Your task to perform on an android device: set the timer Image 0: 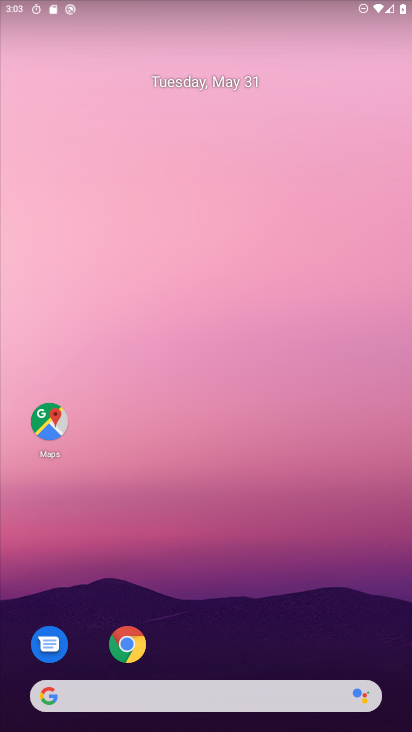
Step 0: click (313, 407)
Your task to perform on an android device: set the timer Image 1: 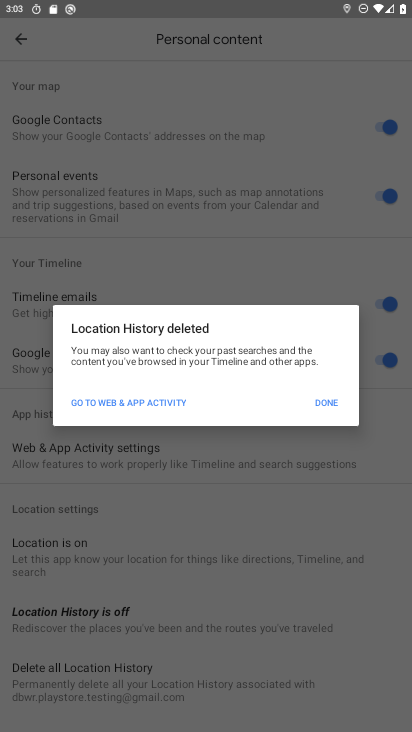
Step 1: press home button
Your task to perform on an android device: set the timer Image 2: 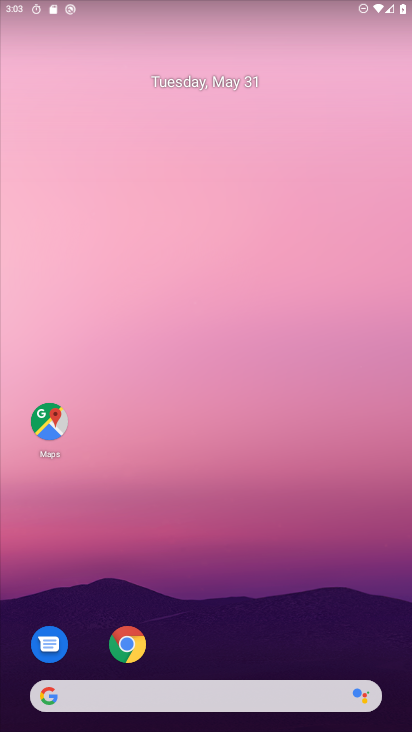
Step 2: drag from (401, 690) to (361, 208)
Your task to perform on an android device: set the timer Image 3: 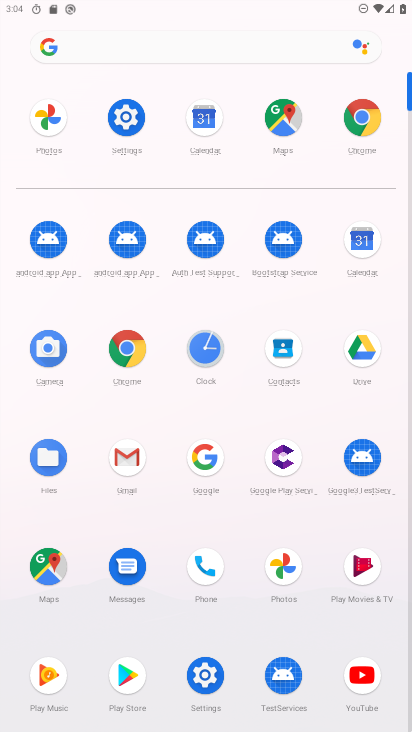
Step 3: click (133, 120)
Your task to perform on an android device: set the timer Image 4: 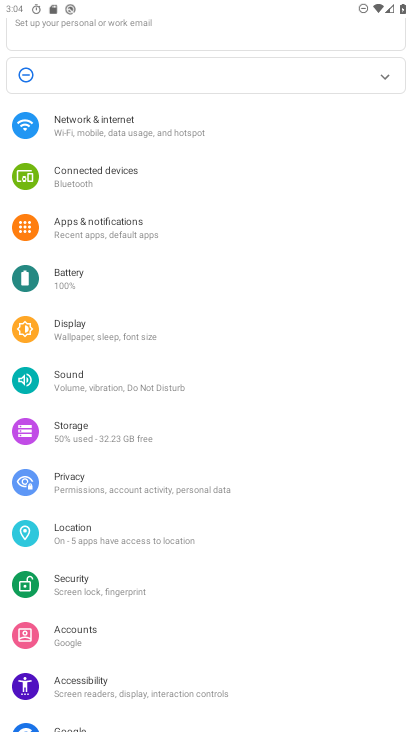
Step 4: press back button
Your task to perform on an android device: set the timer Image 5: 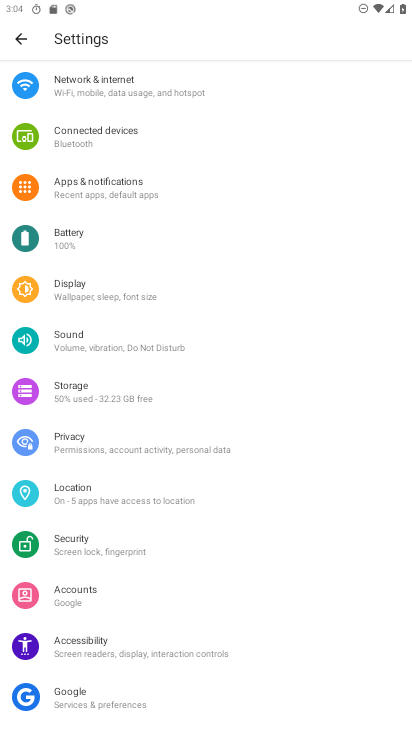
Step 5: press back button
Your task to perform on an android device: set the timer Image 6: 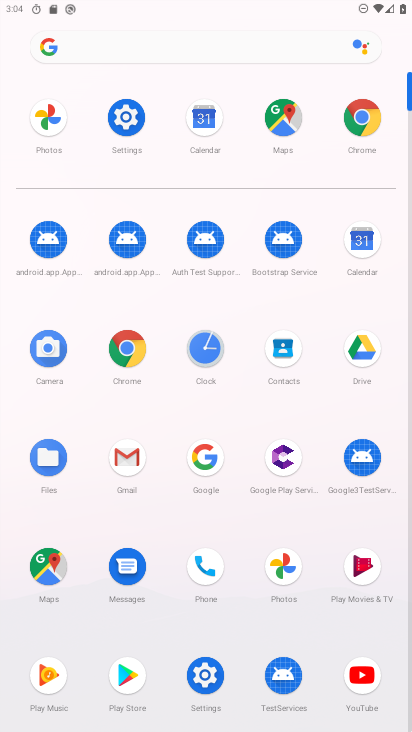
Step 6: click (191, 352)
Your task to perform on an android device: set the timer Image 7: 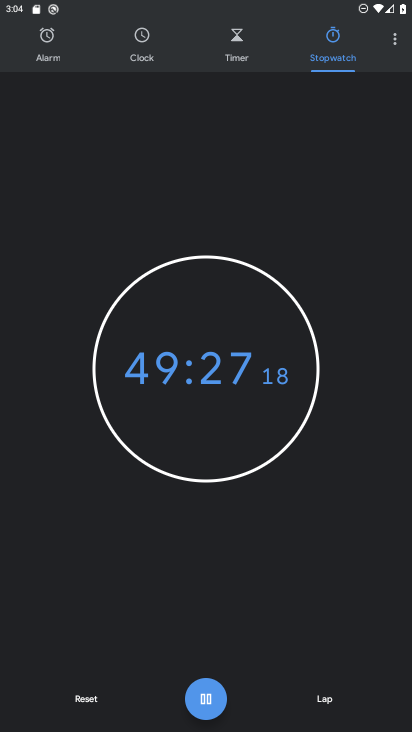
Step 7: click (241, 44)
Your task to perform on an android device: set the timer Image 8: 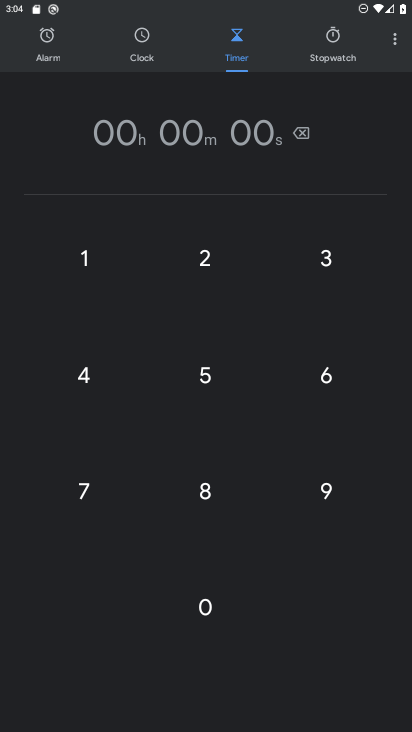
Step 8: click (318, 260)
Your task to perform on an android device: set the timer Image 9: 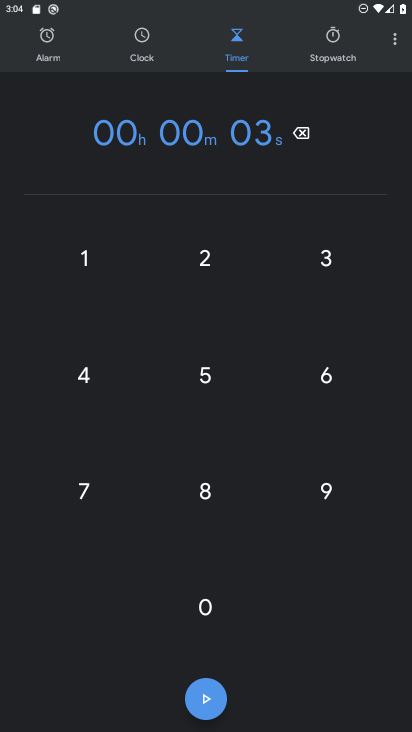
Step 9: click (204, 698)
Your task to perform on an android device: set the timer Image 10: 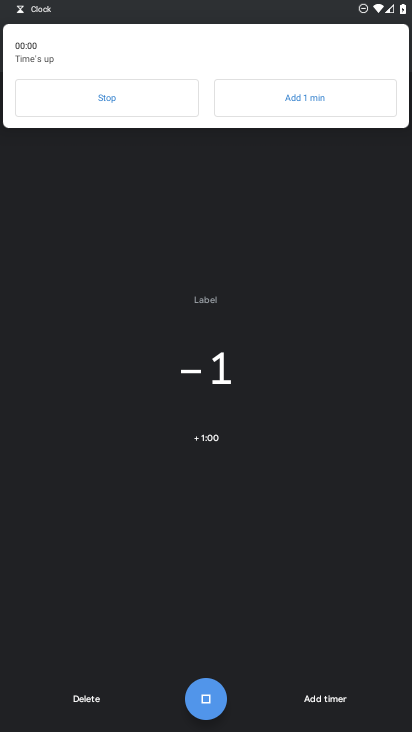
Step 10: task complete